Your task to perform on an android device: visit the assistant section in the google photos Image 0: 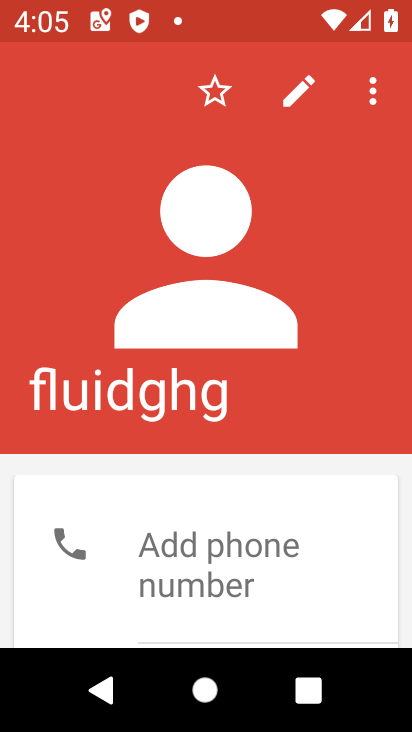
Step 0: press home button
Your task to perform on an android device: visit the assistant section in the google photos Image 1: 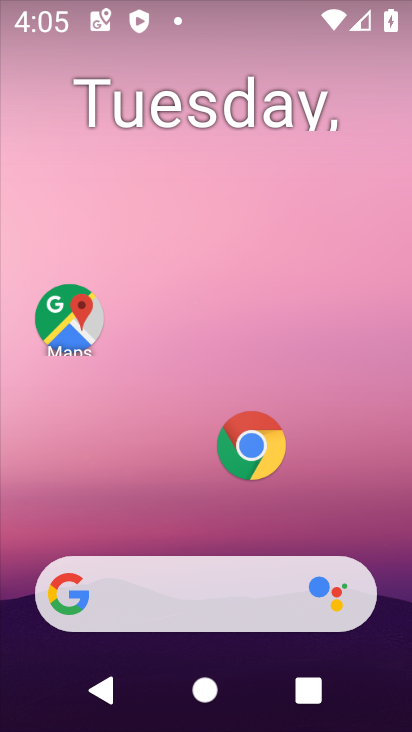
Step 1: drag from (170, 522) to (203, 12)
Your task to perform on an android device: visit the assistant section in the google photos Image 2: 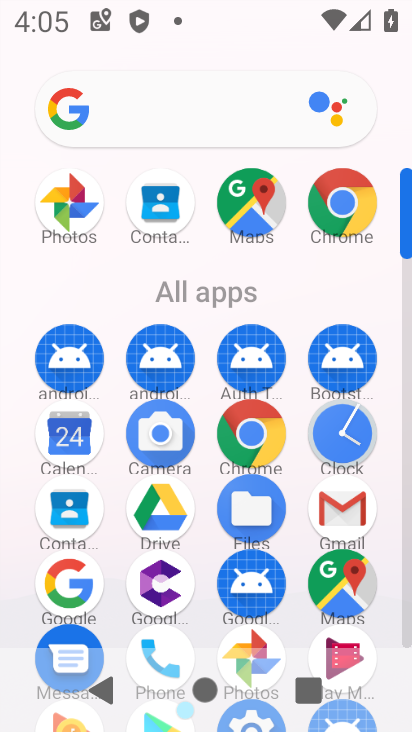
Step 2: drag from (200, 593) to (233, 138)
Your task to perform on an android device: visit the assistant section in the google photos Image 3: 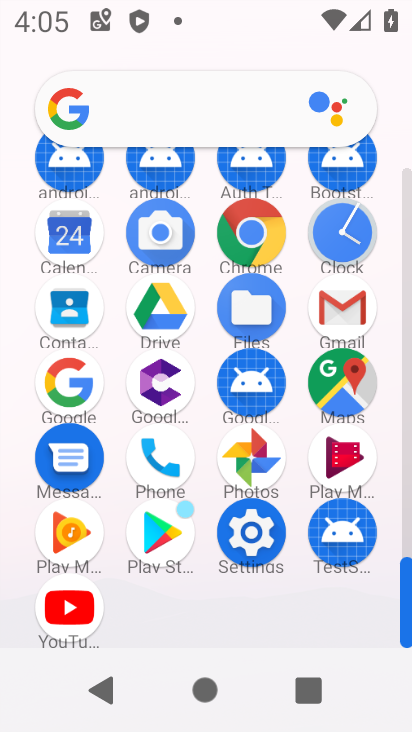
Step 3: click (247, 463)
Your task to perform on an android device: visit the assistant section in the google photos Image 4: 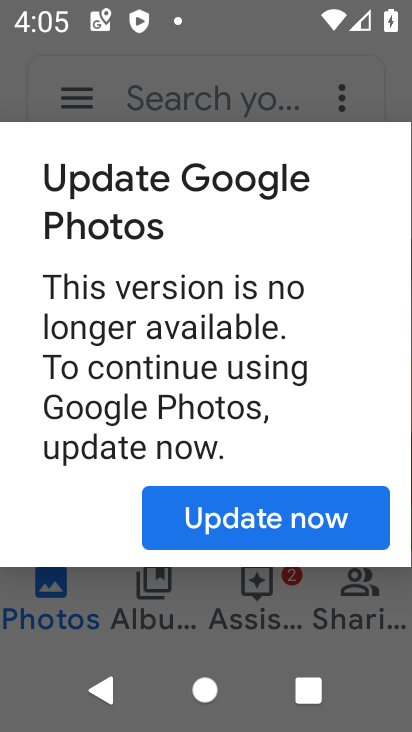
Step 4: click (241, 528)
Your task to perform on an android device: visit the assistant section in the google photos Image 5: 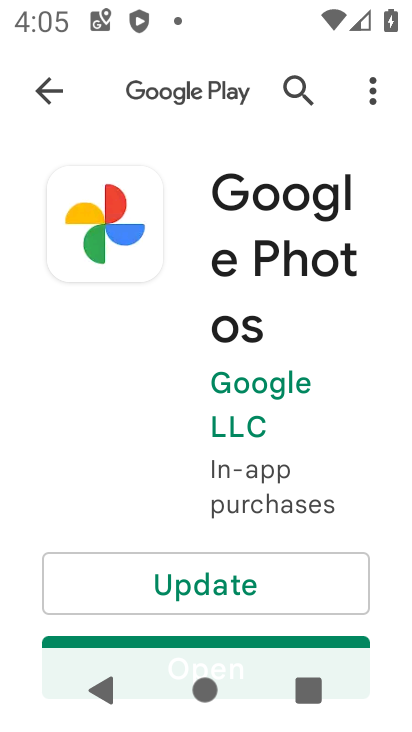
Step 5: drag from (249, 587) to (323, 165)
Your task to perform on an android device: visit the assistant section in the google photos Image 6: 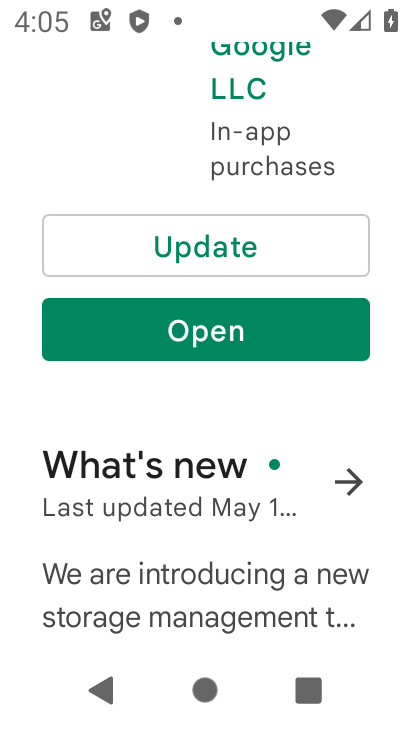
Step 6: click (223, 342)
Your task to perform on an android device: visit the assistant section in the google photos Image 7: 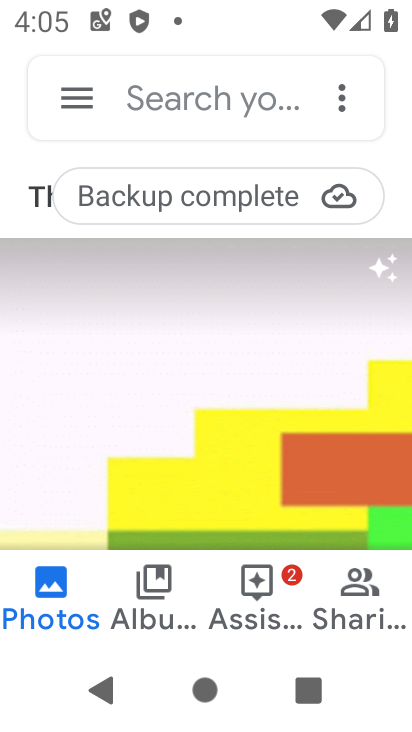
Step 7: click (242, 592)
Your task to perform on an android device: visit the assistant section in the google photos Image 8: 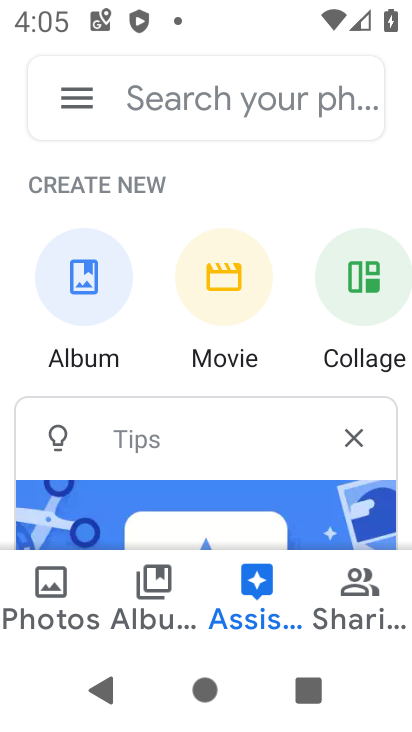
Step 8: task complete